Your task to perform on an android device: Open eBay Image 0: 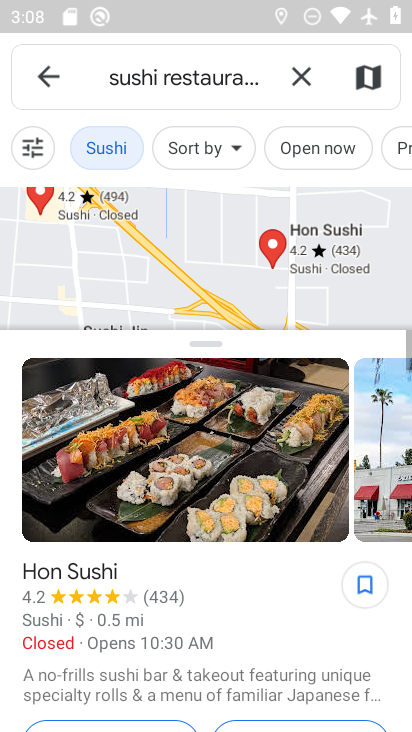
Step 0: press home button
Your task to perform on an android device: Open eBay Image 1: 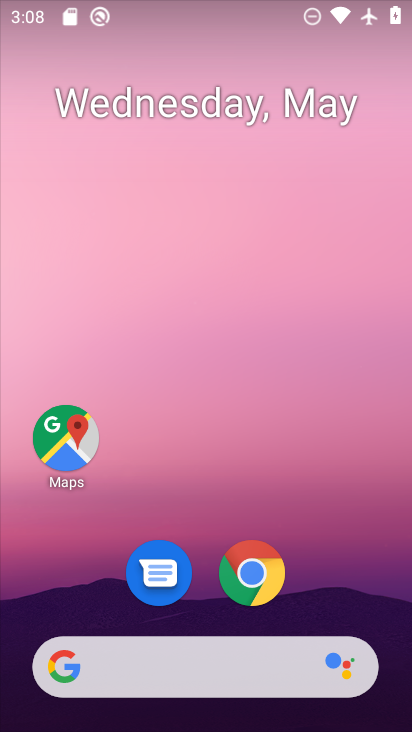
Step 1: click (243, 578)
Your task to perform on an android device: Open eBay Image 2: 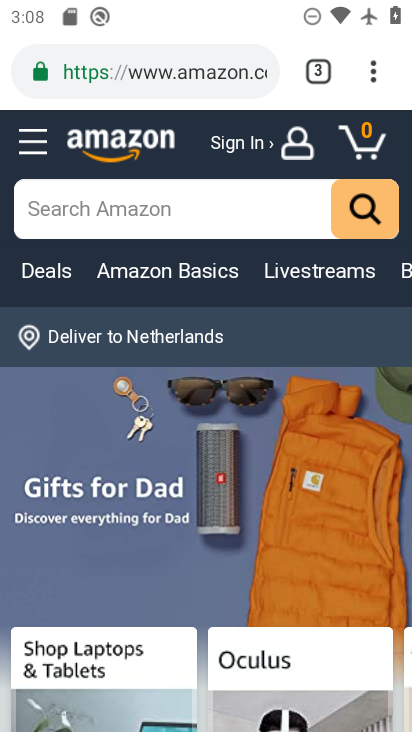
Step 2: click (183, 75)
Your task to perform on an android device: Open eBay Image 3: 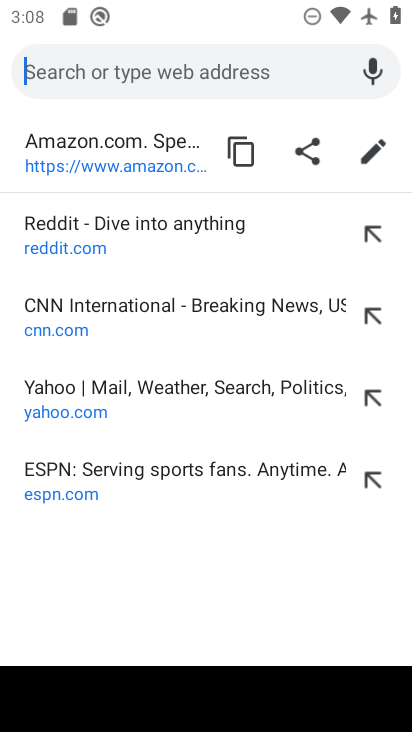
Step 3: type "ebay"
Your task to perform on an android device: Open eBay Image 4: 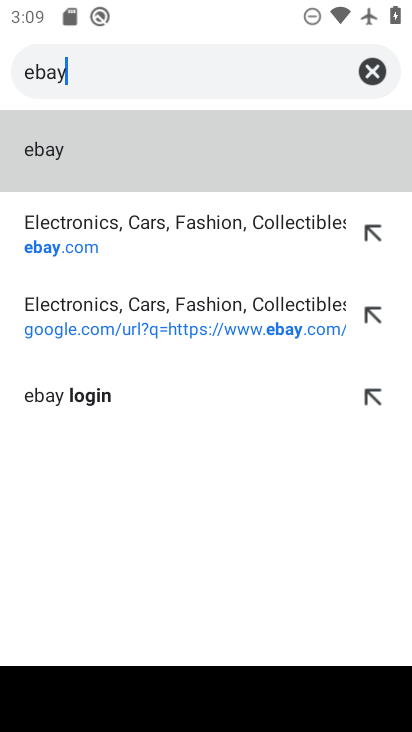
Step 4: click (55, 153)
Your task to perform on an android device: Open eBay Image 5: 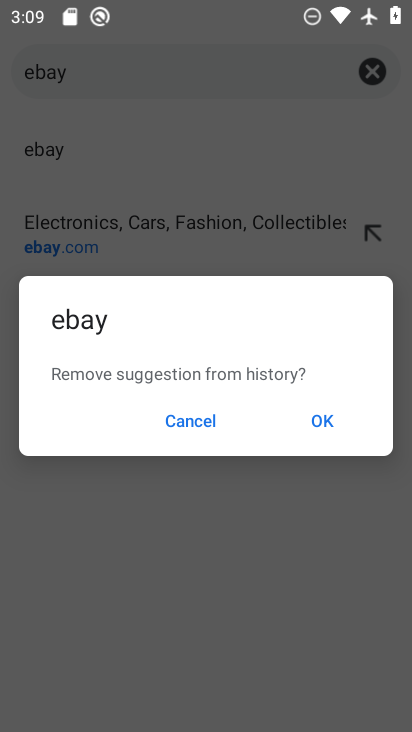
Step 5: click (177, 413)
Your task to perform on an android device: Open eBay Image 6: 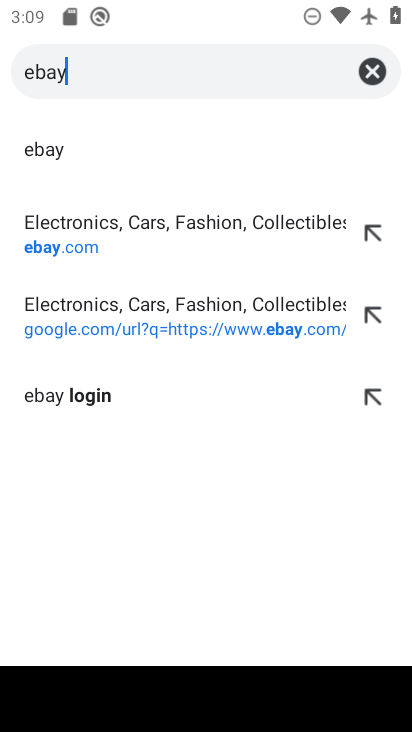
Step 6: click (29, 145)
Your task to perform on an android device: Open eBay Image 7: 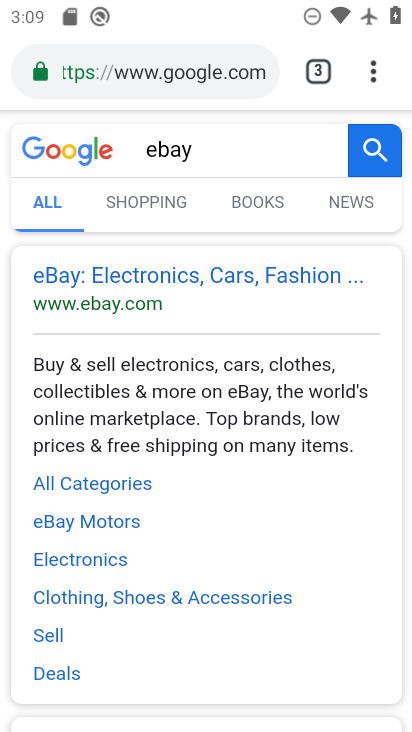
Step 7: click (56, 277)
Your task to perform on an android device: Open eBay Image 8: 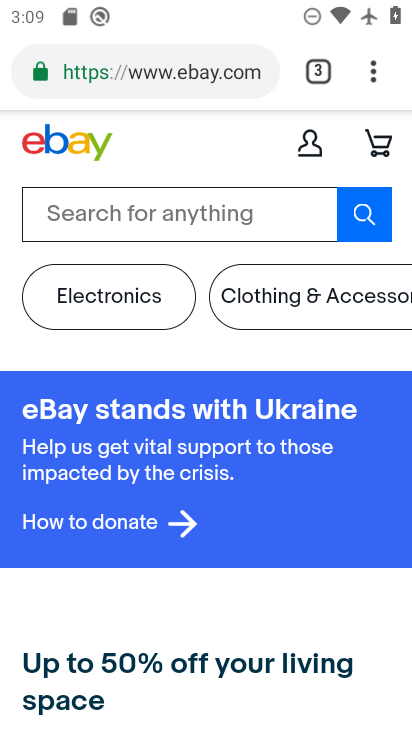
Step 8: task complete